Your task to perform on an android device: find snoozed emails in the gmail app Image 0: 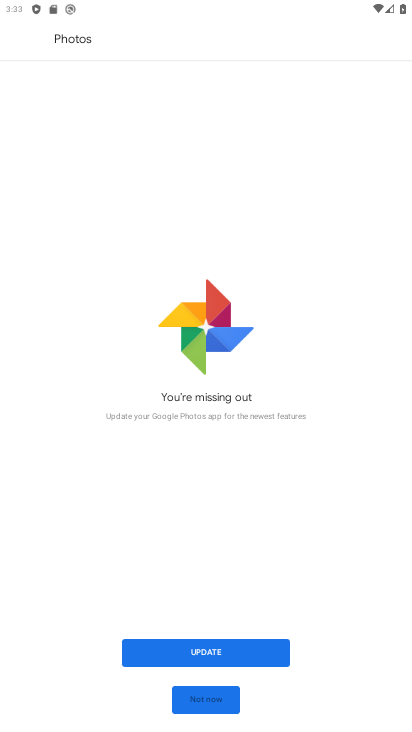
Step 0: press back button
Your task to perform on an android device: find snoozed emails in the gmail app Image 1: 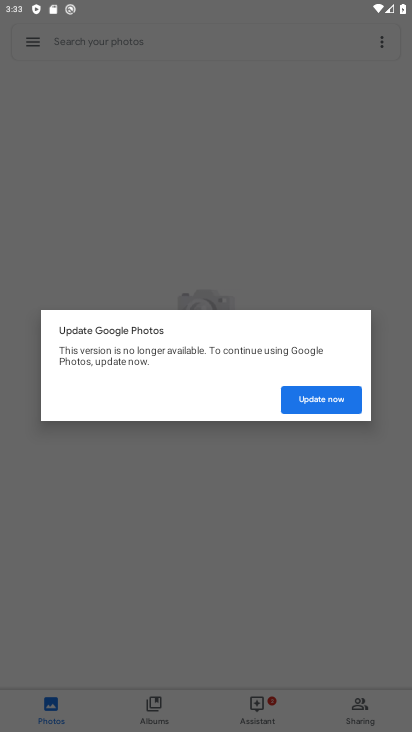
Step 1: press back button
Your task to perform on an android device: find snoozed emails in the gmail app Image 2: 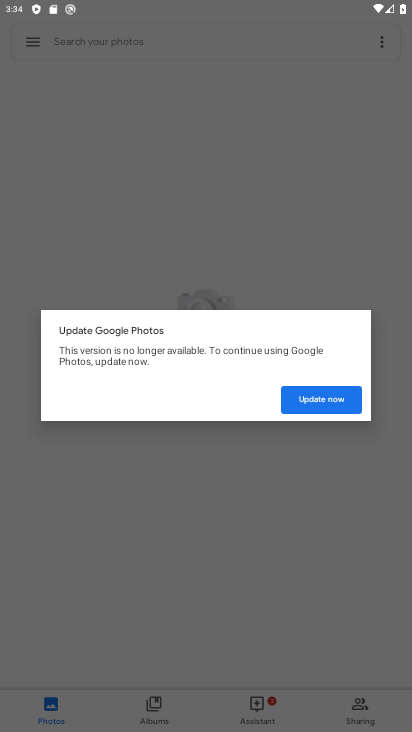
Step 2: press home button
Your task to perform on an android device: find snoozed emails in the gmail app Image 3: 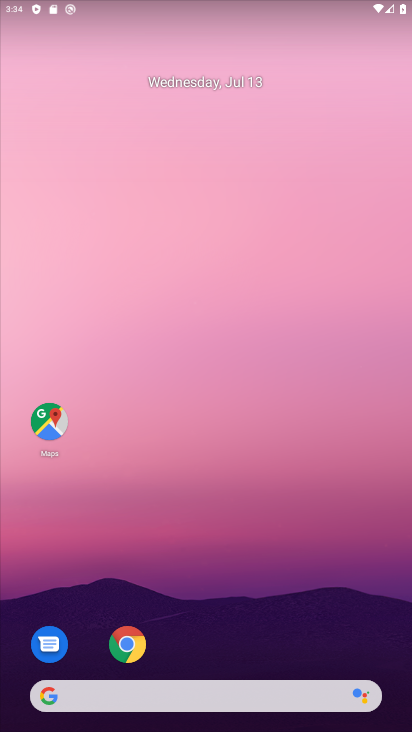
Step 3: drag from (225, 617) to (319, 6)
Your task to perform on an android device: find snoozed emails in the gmail app Image 4: 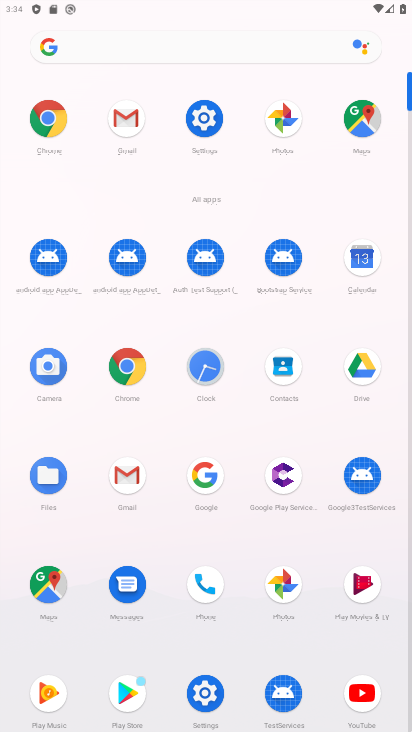
Step 4: click (130, 149)
Your task to perform on an android device: find snoozed emails in the gmail app Image 5: 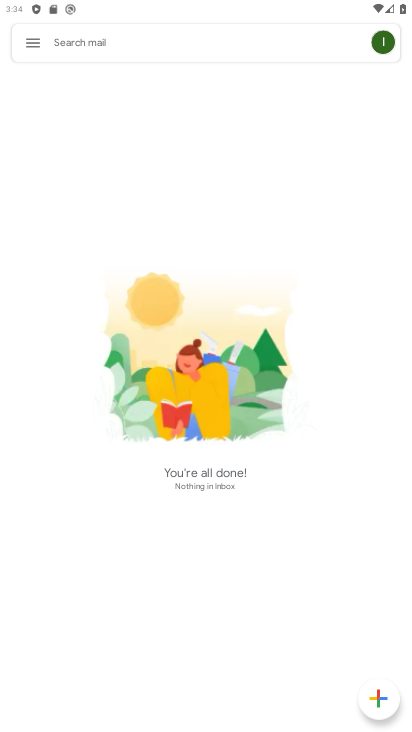
Step 5: click (35, 42)
Your task to perform on an android device: find snoozed emails in the gmail app Image 6: 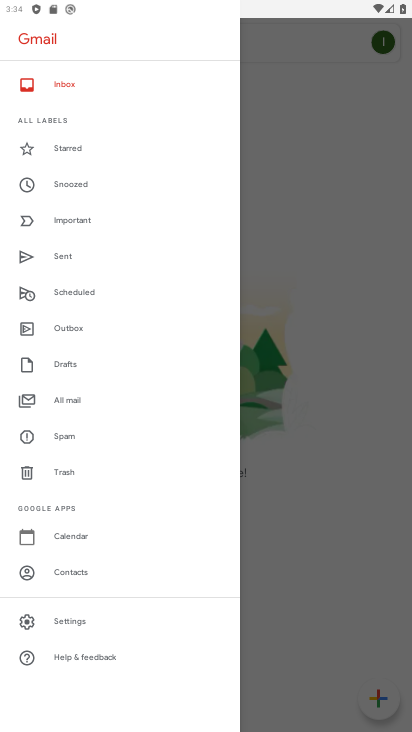
Step 6: click (88, 177)
Your task to perform on an android device: find snoozed emails in the gmail app Image 7: 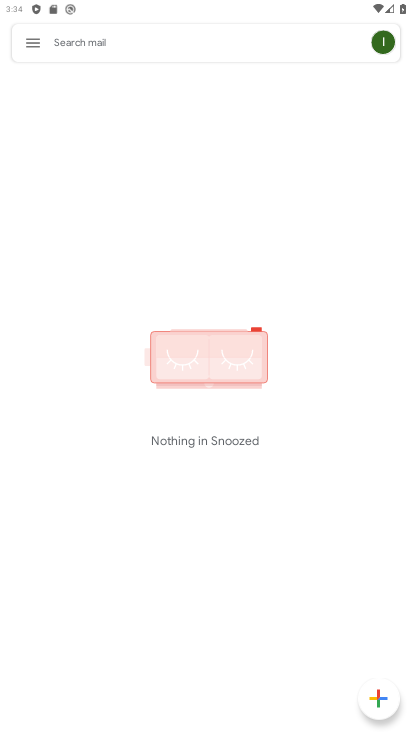
Step 7: task complete